Your task to perform on an android device: allow notifications from all sites in the chrome app Image 0: 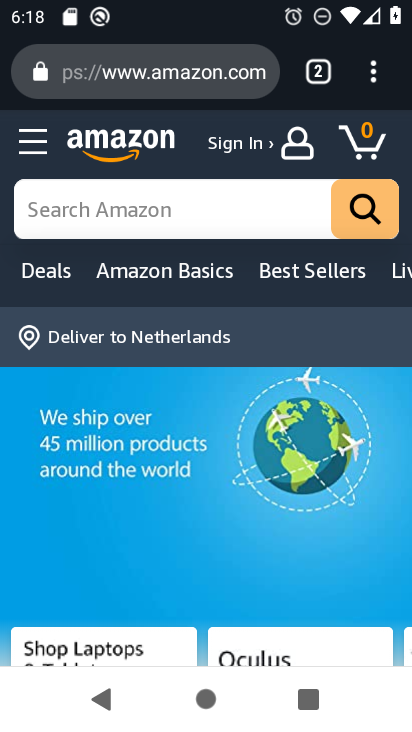
Step 0: press home button
Your task to perform on an android device: allow notifications from all sites in the chrome app Image 1: 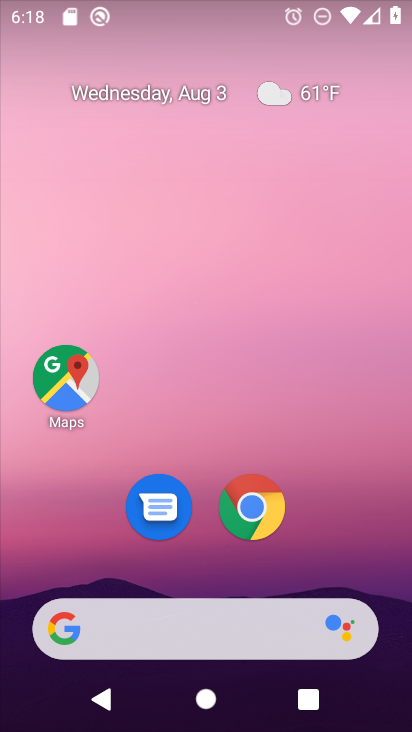
Step 1: drag from (331, 579) to (405, 128)
Your task to perform on an android device: allow notifications from all sites in the chrome app Image 2: 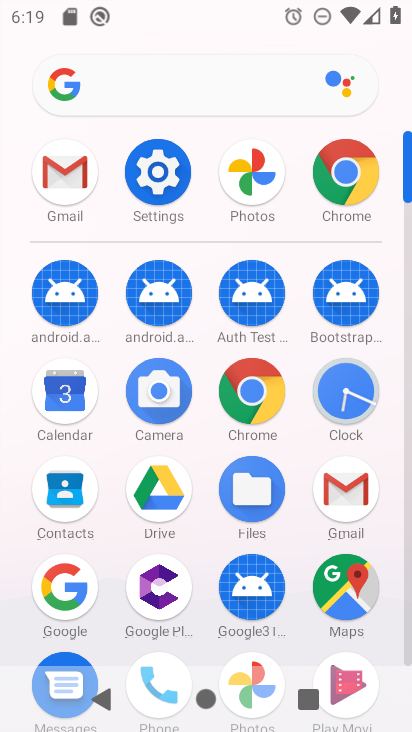
Step 2: click (252, 389)
Your task to perform on an android device: allow notifications from all sites in the chrome app Image 3: 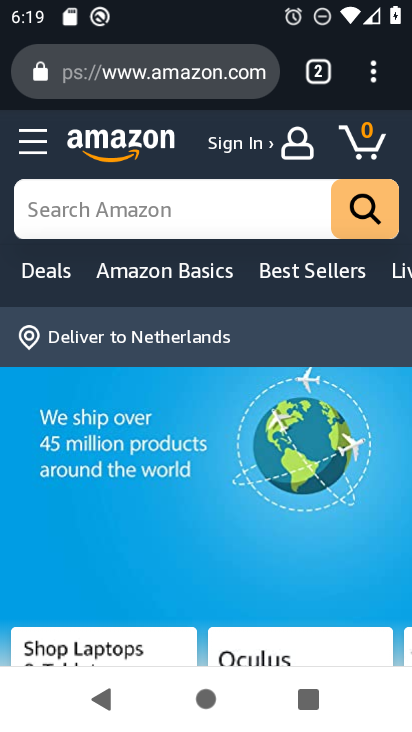
Step 3: drag from (376, 61) to (160, 512)
Your task to perform on an android device: allow notifications from all sites in the chrome app Image 4: 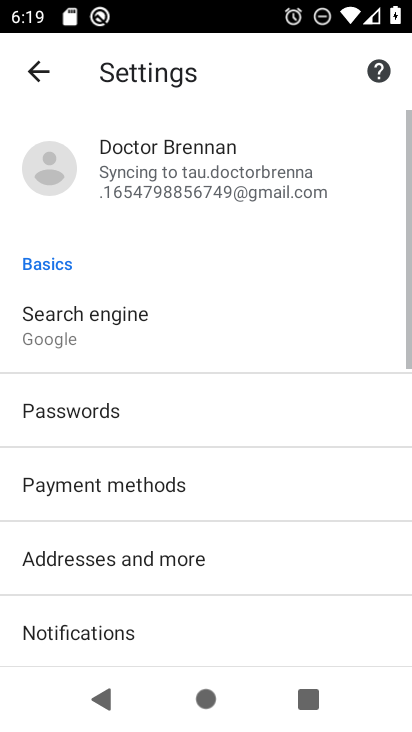
Step 4: drag from (232, 544) to (309, 123)
Your task to perform on an android device: allow notifications from all sites in the chrome app Image 5: 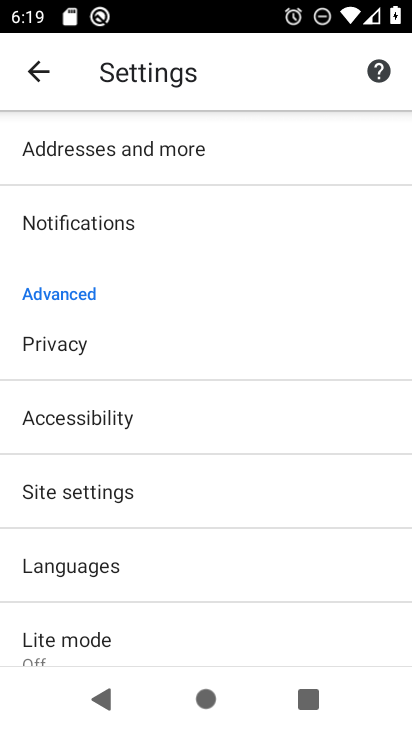
Step 5: drag from (174, 605) to (302, 272)
Your task to perform on an android device: allow notifications from all sites in the chrome app Image 6: 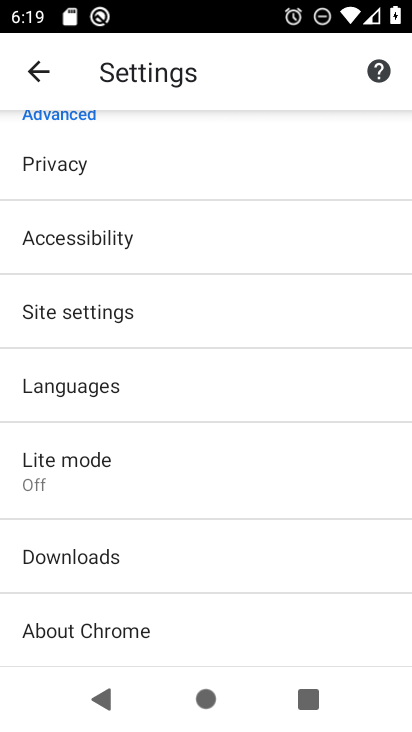
Step 6: drag from (253, 224) to (252, 643)
Your task to perform on an android device: allow notifications from all sites in the chrome app Image 7: 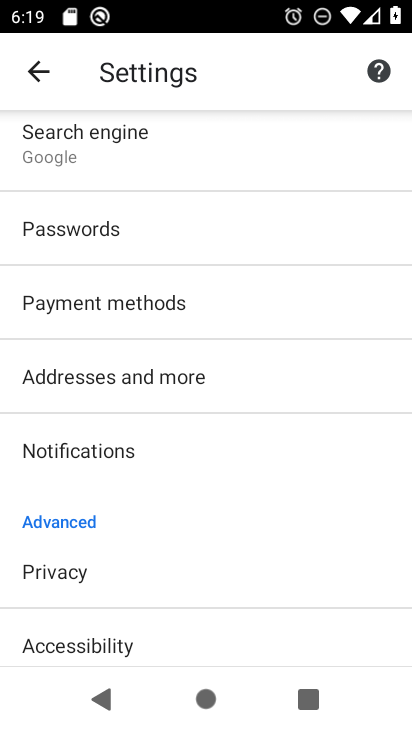
Step 7: drag from (241, 234) to (271, 323)
Your task to perform on an android device: allow notifications from all sites in the chrome app Image 8: 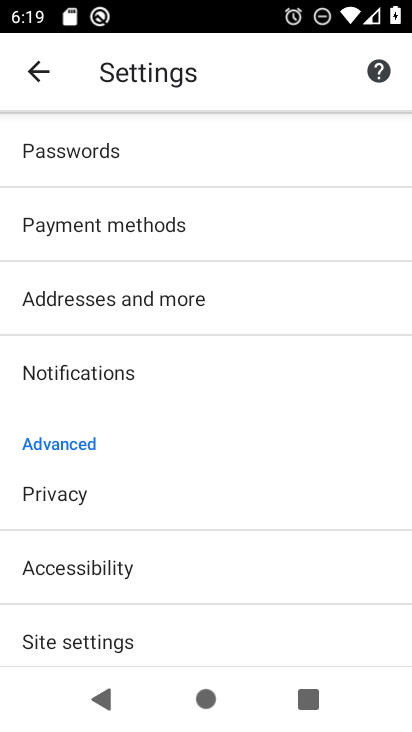
Step 8: click (103, 390)
Your task to perform on an android device: allow notifications from all sites in the chrome app Image 9: 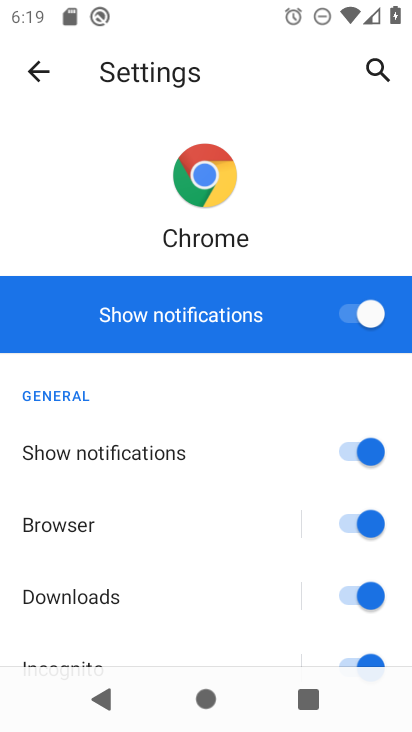
Step 9: task complete